Your task to perform on an android device: Open Chrome and go to settings Image 0: 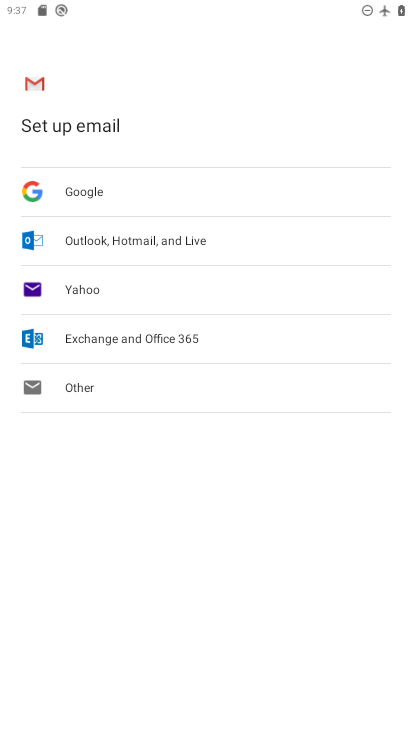
Step 0: press home button
Your task to perform on an android device: Open Chrome and go to settings Image 1: 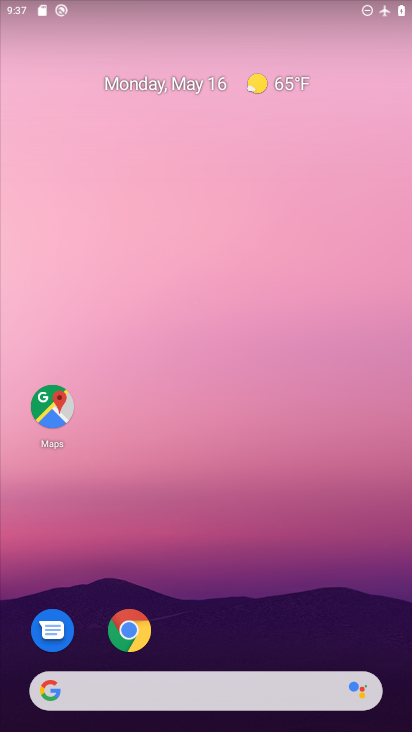
Step 1: click (137, 624)
Your task to perform on an android device: Open Chrome and go to settings Image 2: 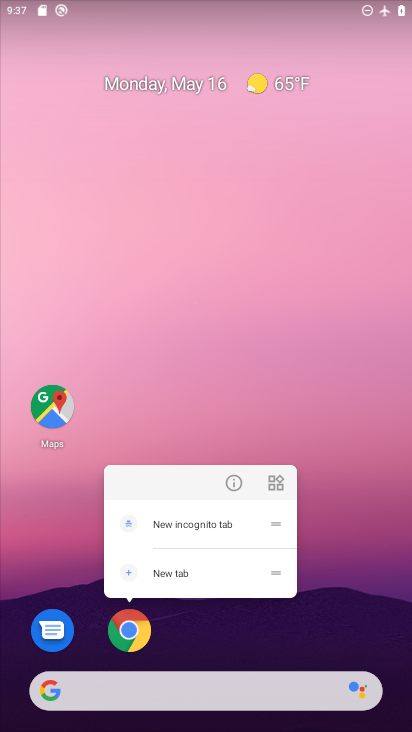
Step 2: click (135, 622)
Your task to perform on an android device: Open Chrome and go to settings Image 3: 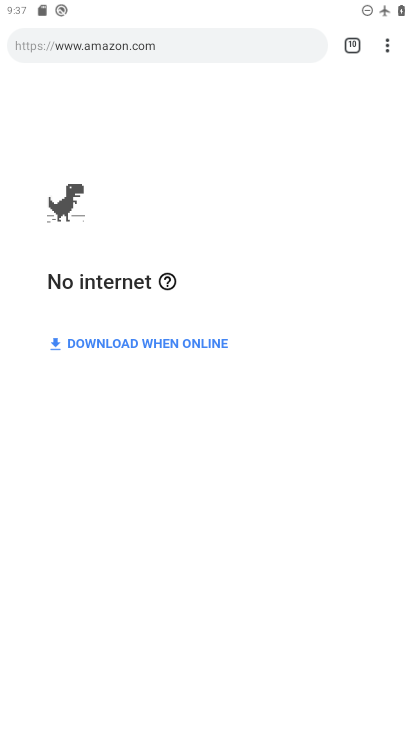
Step 3: task complete